Your task to perform on an android device: set the stopwatch Image 0: 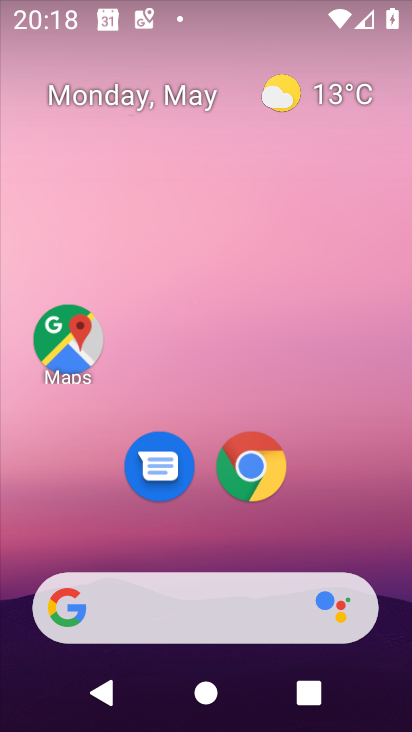
Step 0: click (286, 251)
Your task to perform on an android device: set the stopwatch Image 1: 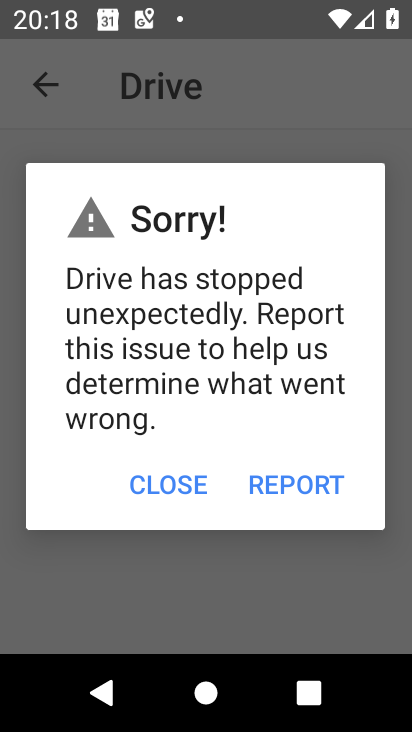
Step 1: press home button
Your task to perform on an android device: set the stopwatch Image 2: 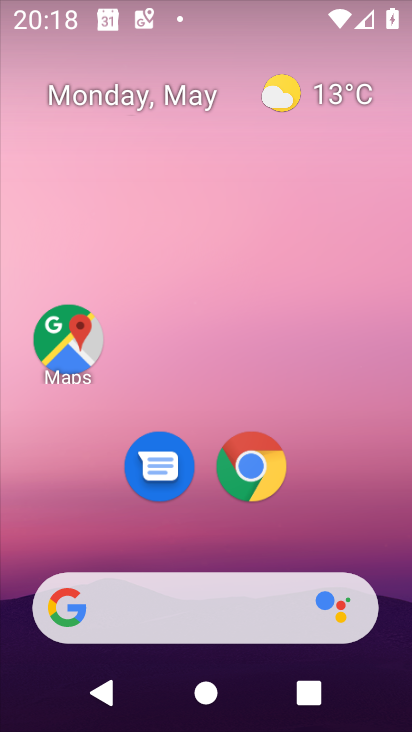
Step 2: drag from (345, 515) to (345, 317)
Your task to perform on an android device: set the stopwatch Image 3: 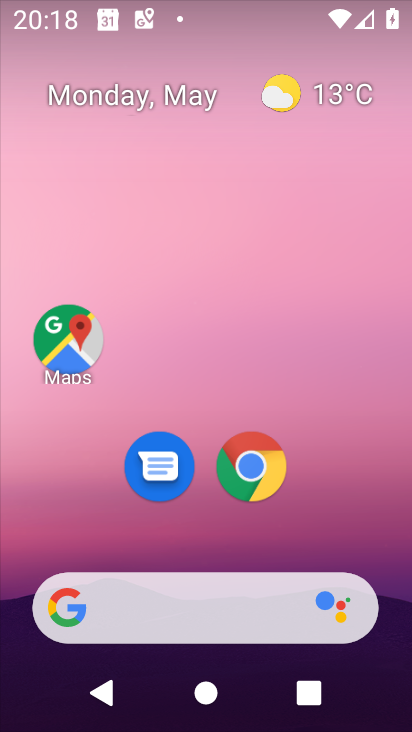
Step 3: drag from (284, 534) to (310, 286)
Your task to perform on an android device: set the stopwatch Image 4: 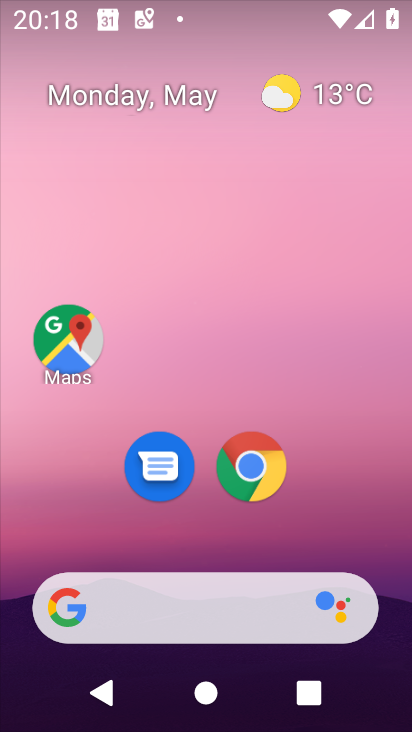
Step 4: drag from (288, 545) to (321, 317)
Your task to perform on an android device: set the stopwatch Image 5: 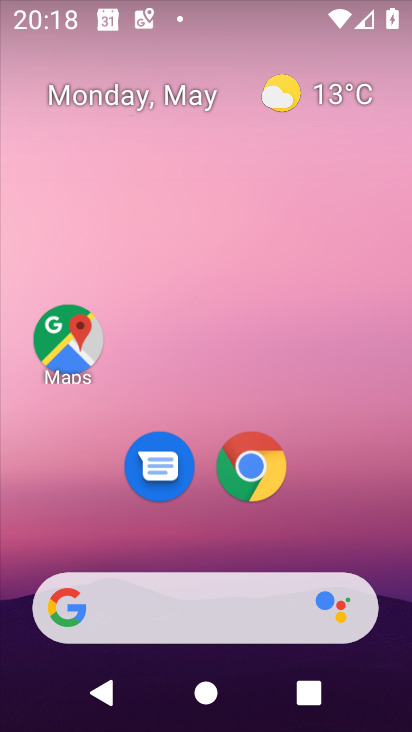
Step 5: drag from (217, 580) to (292, 318)
Your task to perform on an android device: set the stopwatch Image 6: 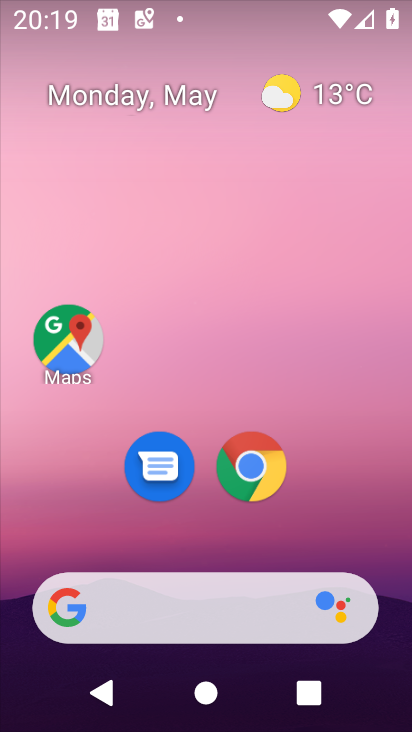
Step 6: drag from (165, 630) to (184, 158)
Your task to perform on an android device: set the stopwatch Image 7: 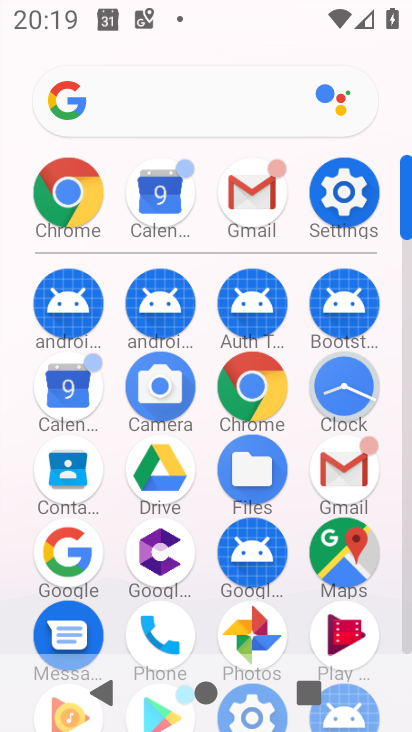
Step 7: click (354, 395)
Your task to perform on an android device: set the stopwatch Image 8: 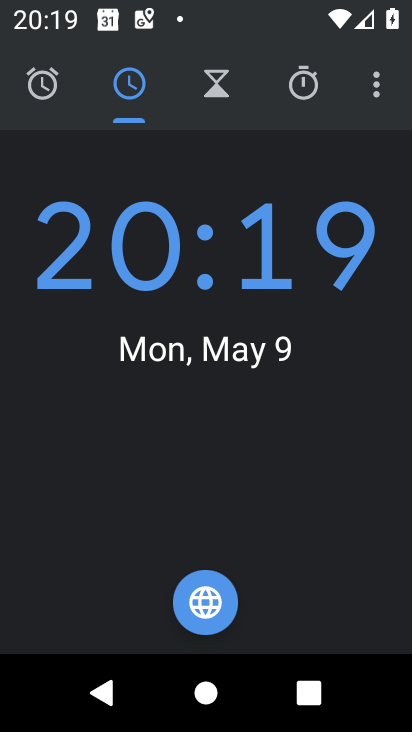
Step 8: click (286, 80)
Your task to perform on an android device: set the stopwatch Image 9: 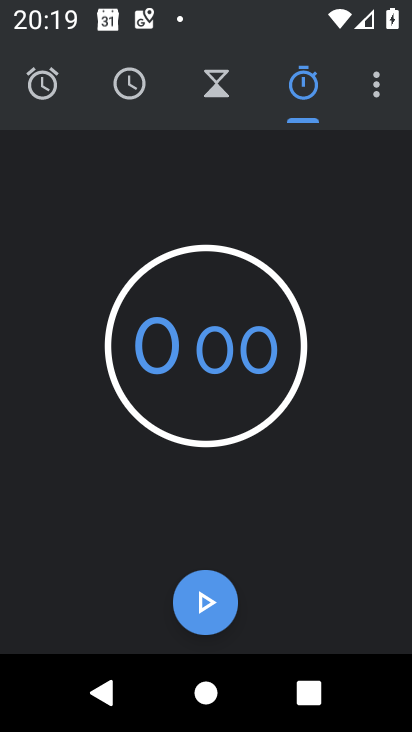
Step 9: task complete